Your task to perform on an android device: stop showing notifications on the lock screen Image 0: 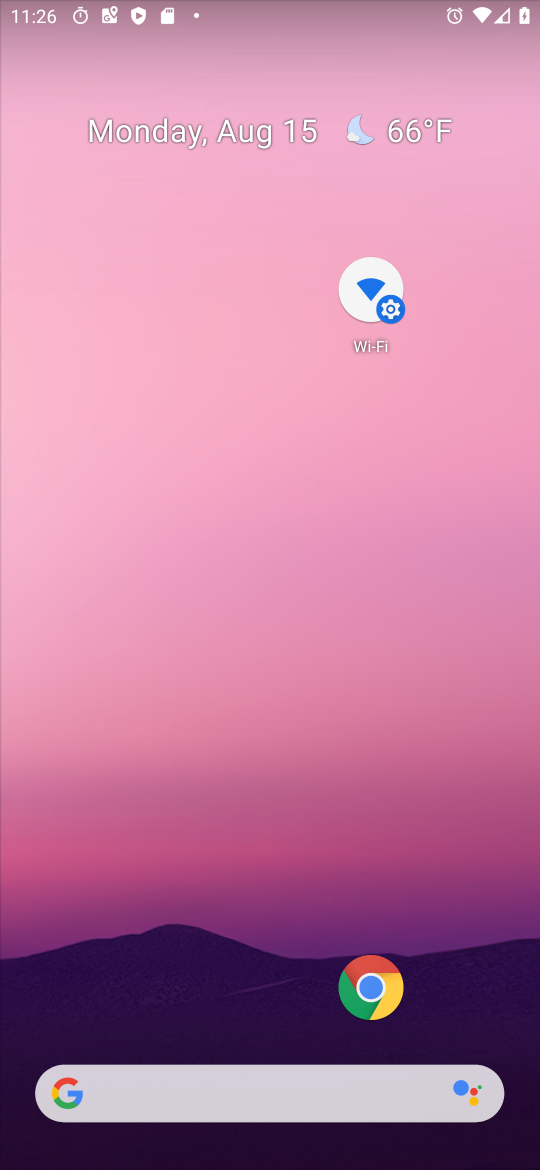
Step 0: drag from (327, 1035) to (251, 19)
Your task to perform on an android device: stop showing notifications on the lock screen Image 1: 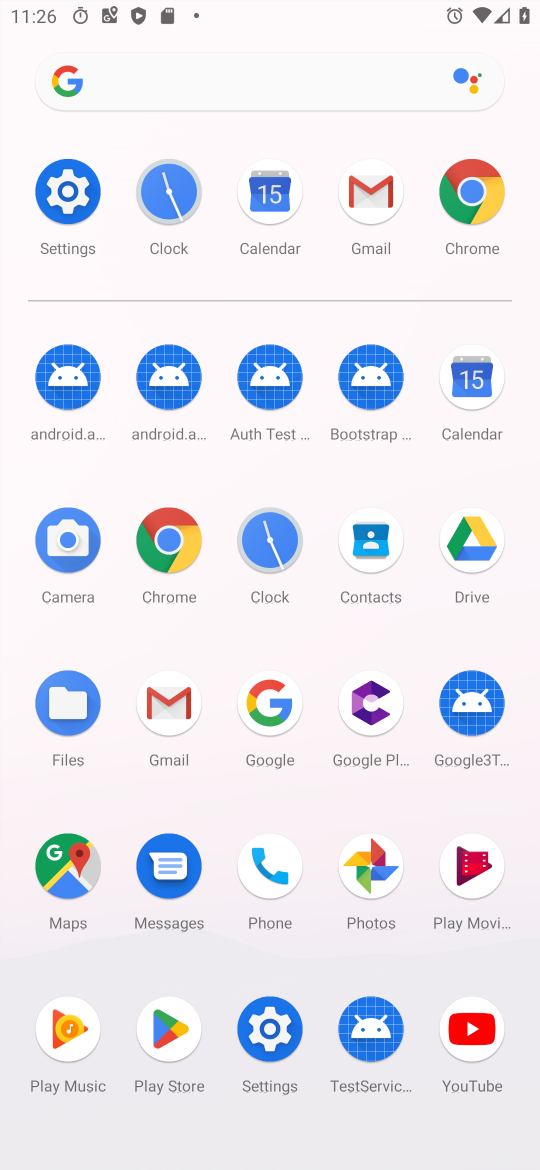
Step 1: click (231, 1056)
Your task to perform on an android device: stop showing notifications on the lock screen Image 2: 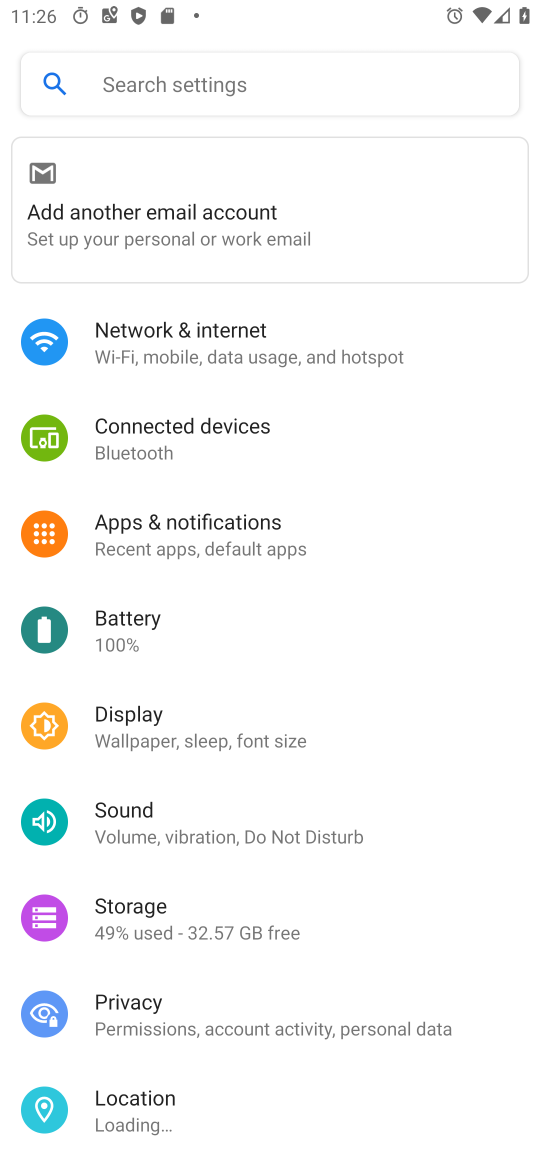
Step 2: click (215, 559)
Your task to perform on an android device: stop showing notifications on the lock screen Image 3: 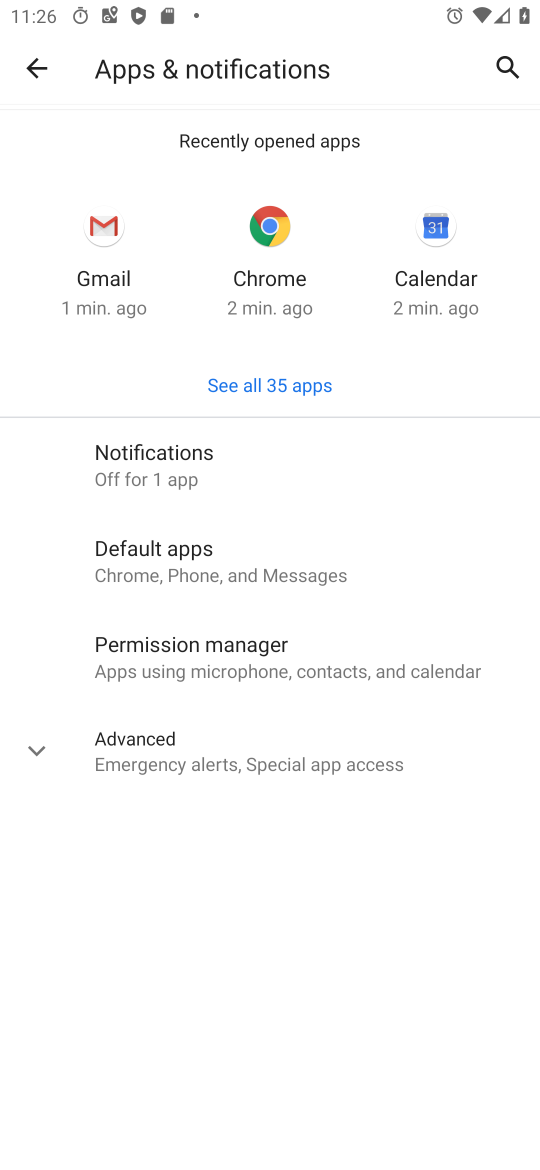
Step 3: click (221, 458)
Your task to perform on an android device: stop showing notifications on the lock screen Image 4: 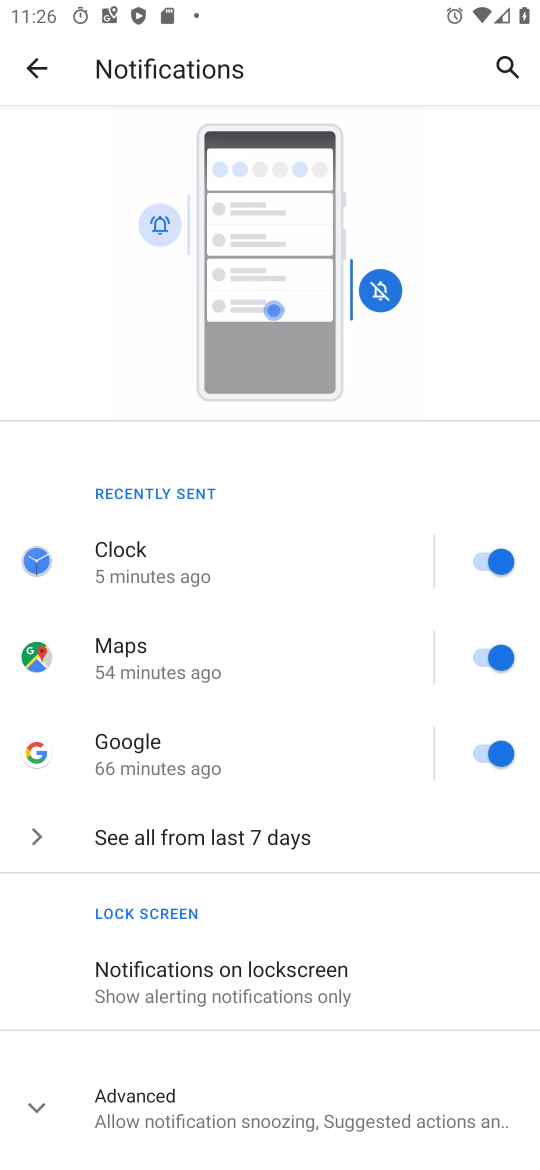
Step 4: click (276, 1015)
Your task to perform on an android device: stop showing notifications on the lock screen Image 5: 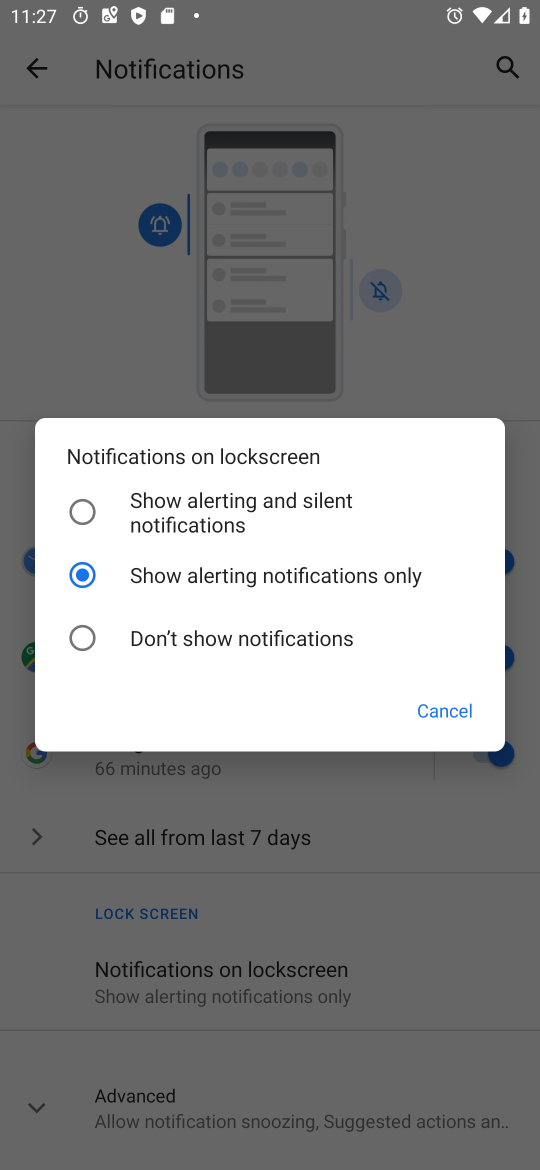
Step 5: click (166, 634)
Your task to perform on an android device: stop showing notifications on the lock screen Image 6: 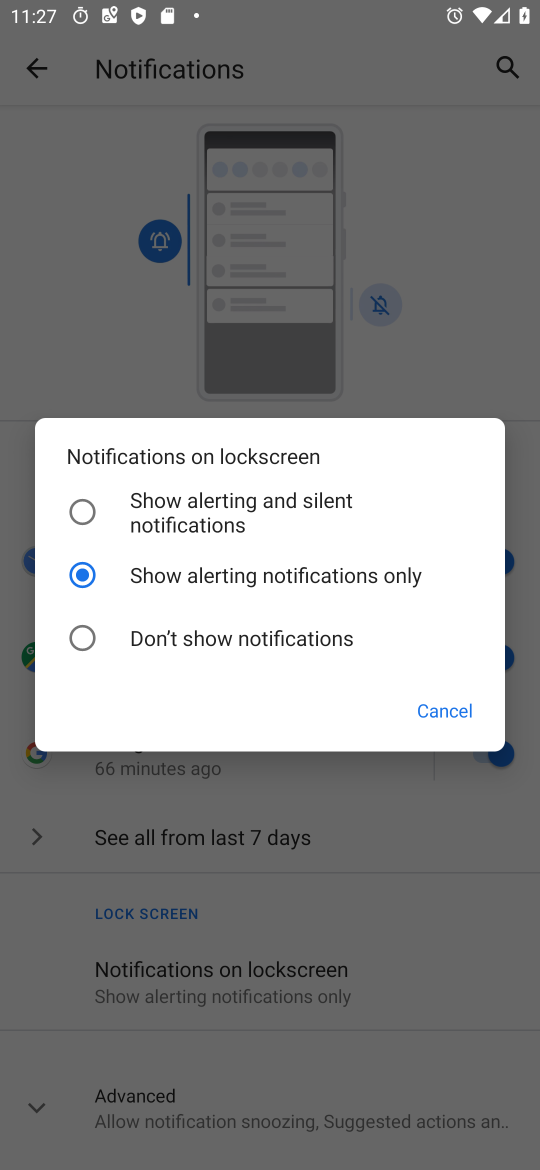
Step 6: task complete